Your task to perform on an android device: When is my next appointment? Image 0: 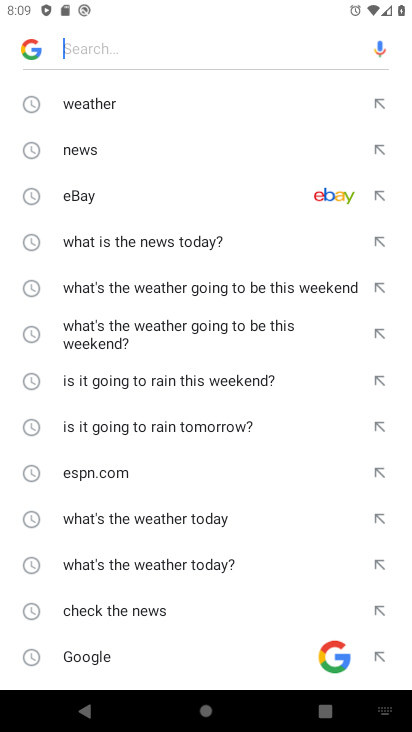
Step 0: drag from (338, 691) to (224, 65)
Your task to perform on an android device: When is my next appointment? Image 1: 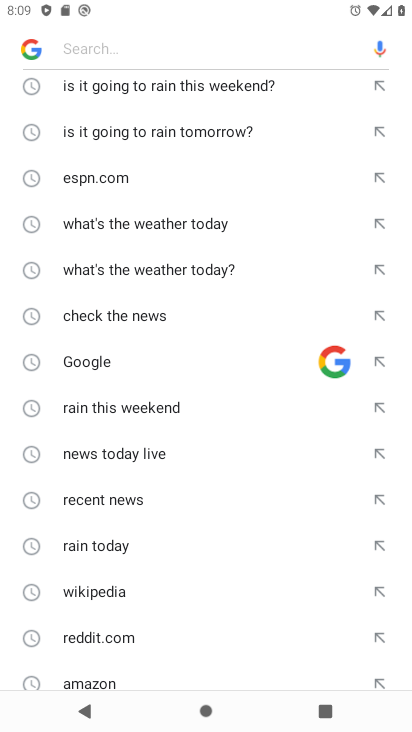
Step 1: press back button
Your task to perform on an android device: When is my next appointment? Image 2: 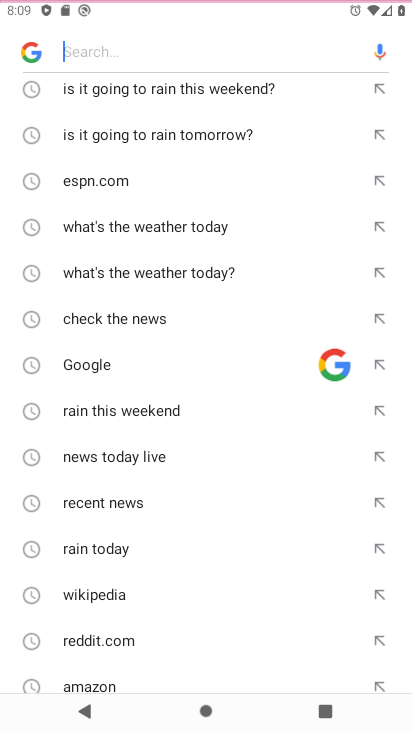
Step 2: press back button
Your task to perform on an android device: When is my next appointment? Image 3: 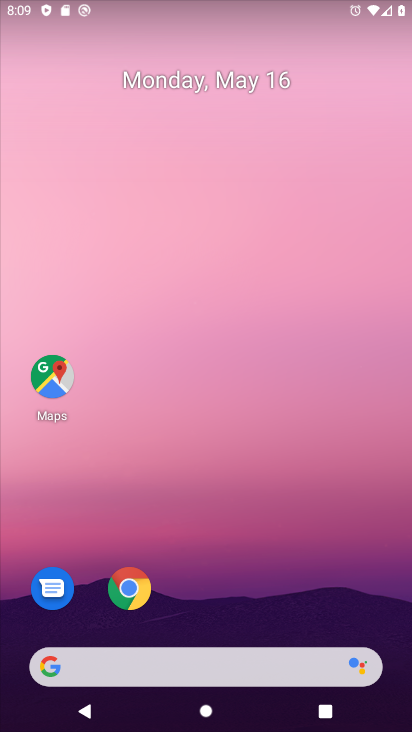
Step 3: drag from (241, 548) to (87, 83)
Your task to perform on an android device: When is my next appointment? Image 4: 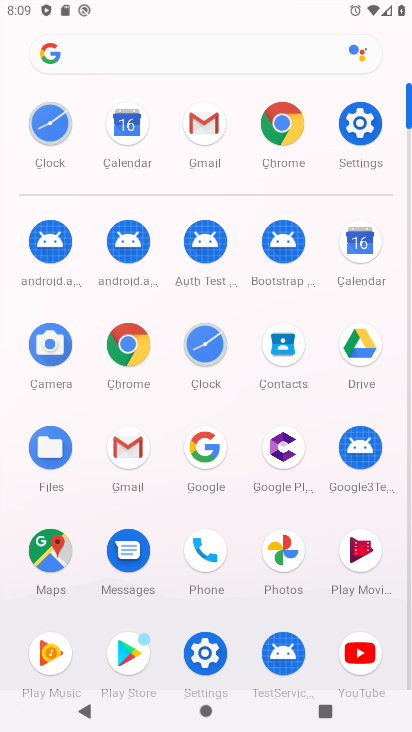
Step 4: click (366, 239)
Your task to perform on an android device: When is my next appointment? Image 5: 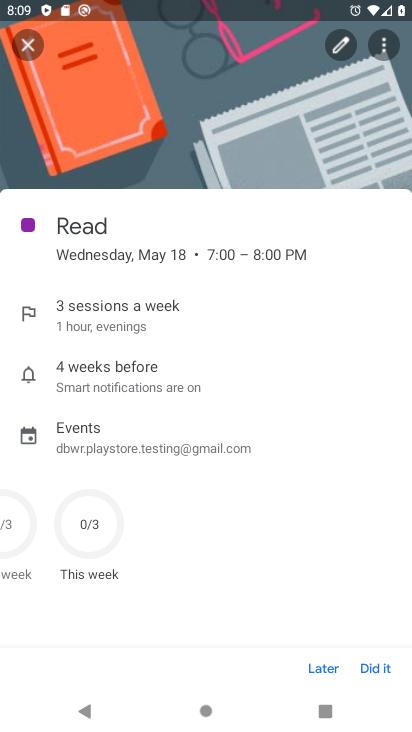
Step 5: task complete